Your task to perform on an android device: open wifi settings Image 0: 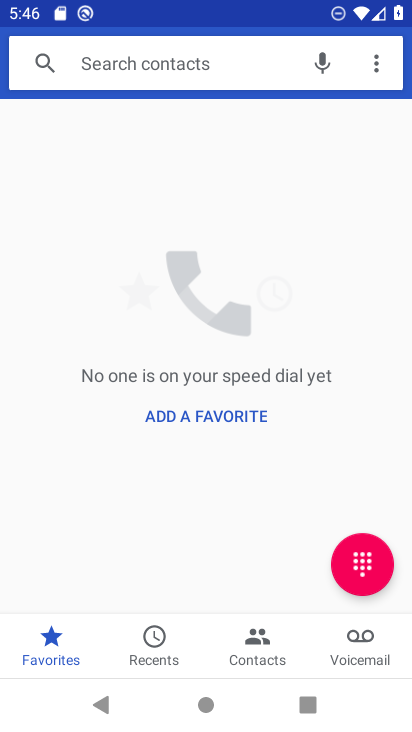
Step 0: press home button
Your task to perform on an android device: open wifi settings Image 1: 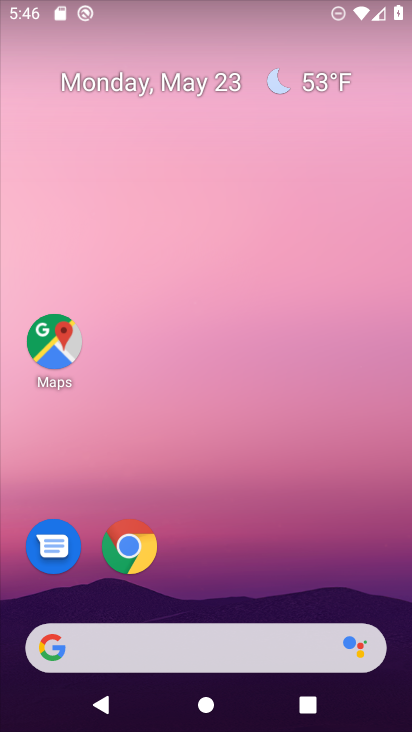
Step 1: drag from (239, 588) to (224, 162)
Your task to perform on an android device: open wifi settings Image 2: 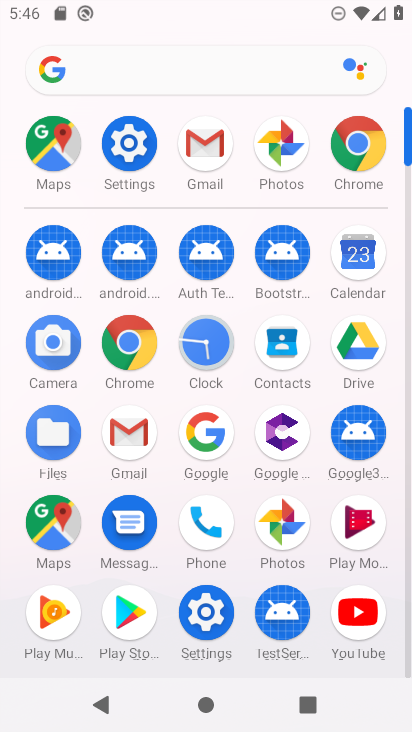
Step 2: click (134, 140)
Your task to perform on an android device: open wifi settings Image 3: 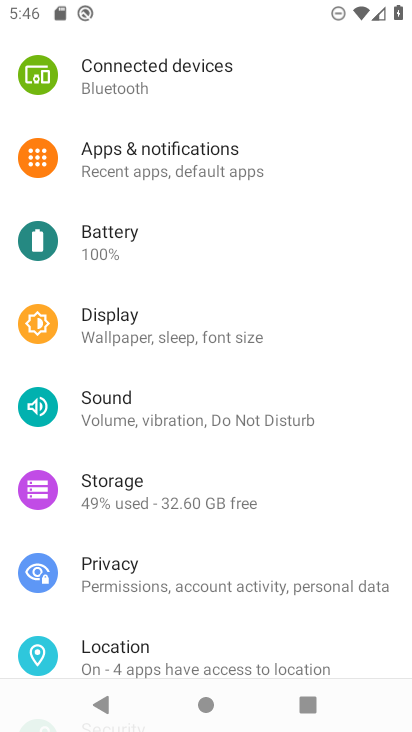
Step 3: drag from (314, 157) to (252, 406)
Your task to perform on an android device: open wifi settings Image 4: 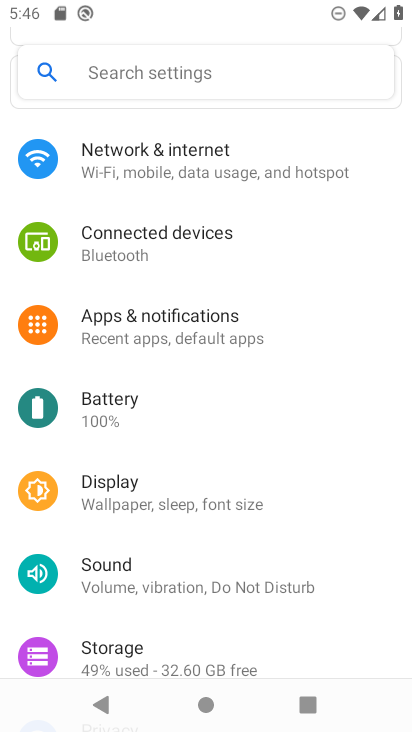
Step 4: click (206, 170)
Your task to perform on an android device: open wifi settings Image 5: 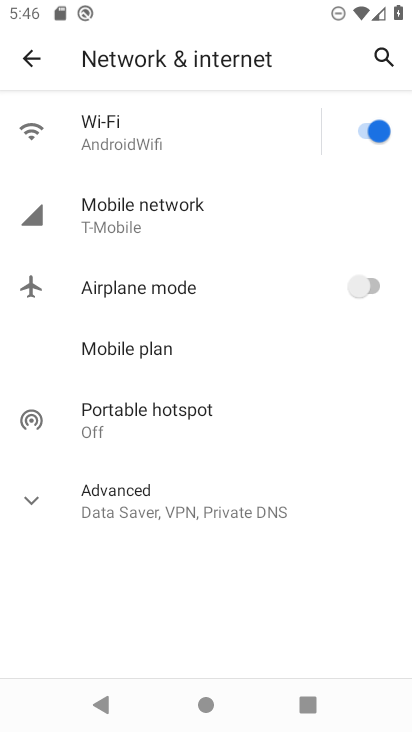
Step 5: click (139, 142)
Your task to perform on an android device: open wifi settings Image 6: 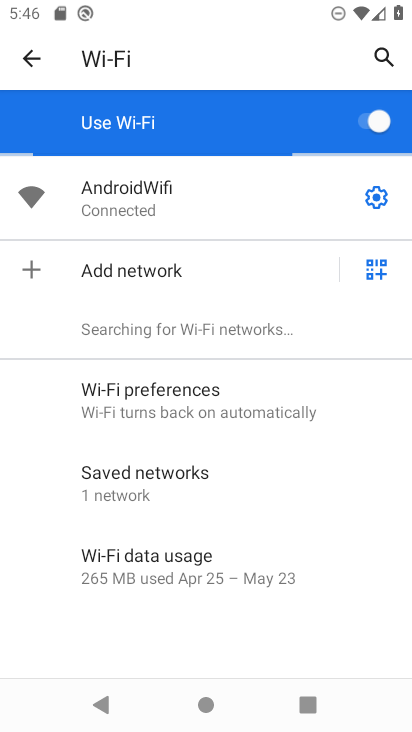
Step 6: task complete